Your task to perform on an android device: turn off airplane mode Image 0: 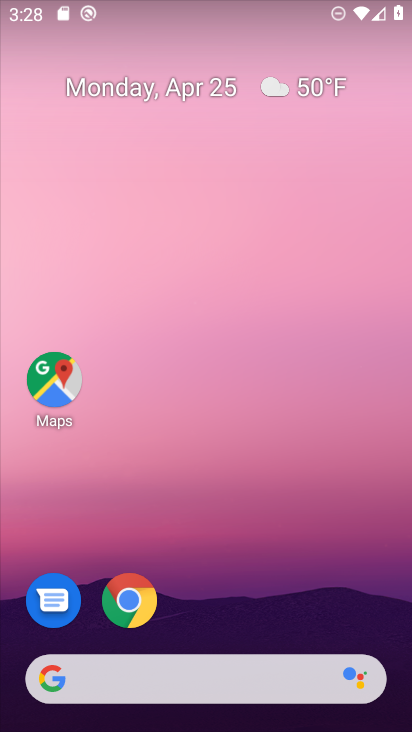
Step 0: drag from (202, 663) to (160, 10)
Your task to perform on an android device: turn off airplane mode Image 1: 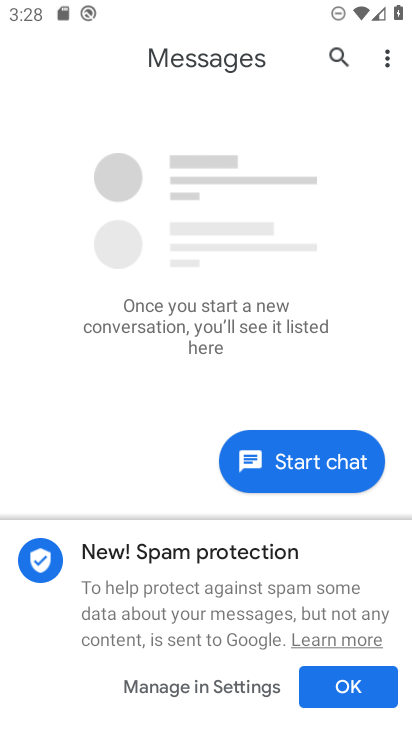
Step 1: press home button
Your task to perform on an android device: turn off airplane mode Image 2: 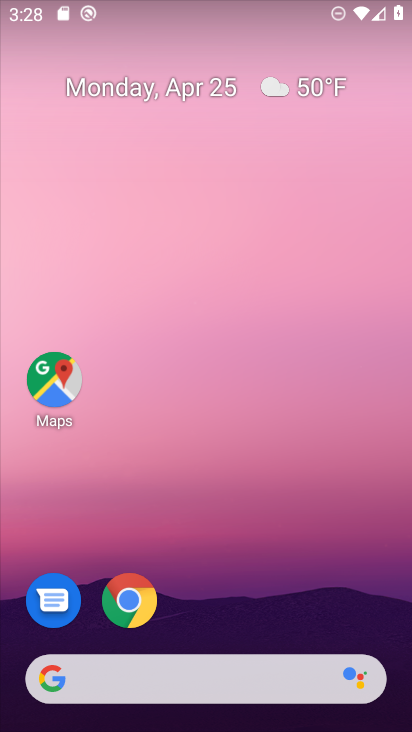
Step 2: drag from (219, 638) to (269, 0)
Your task to perform on an android device: turn off airplane mode Image 3: 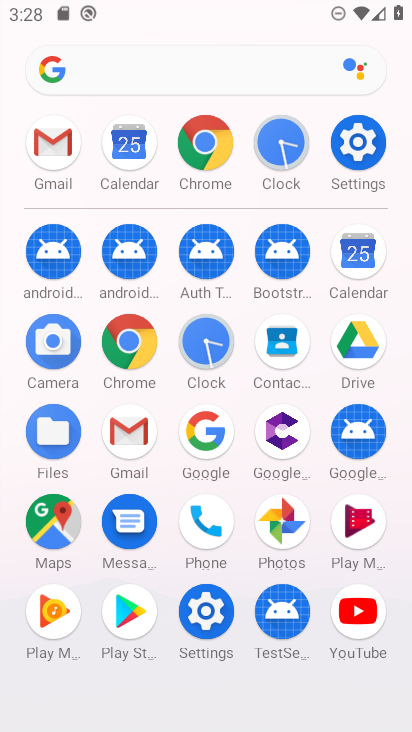
Step 3: click (349, 121)
Your task to perform on an android device: turn off airplane mode Image 4: 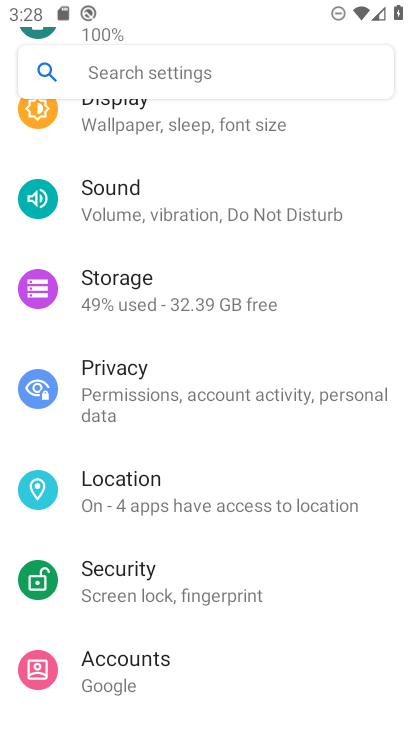
Step 4: drag from (187, 289) to (146, 620)
Your task to perform on an android device: turn off airplane mode Image 5: 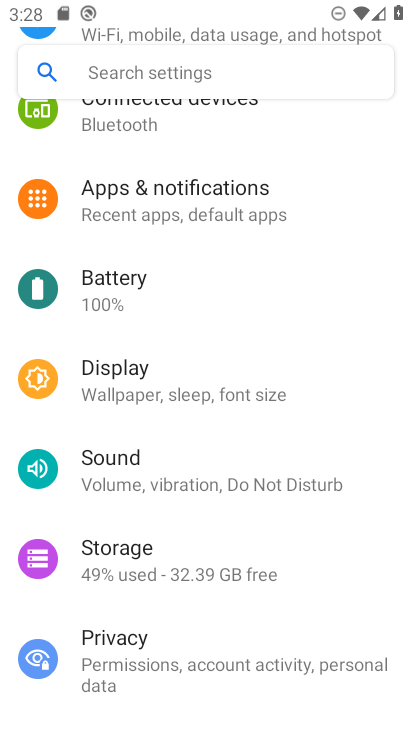
Step 5: drag from (174, 244) to (180, 628)
Your task to perform on an android device: turn off airplane mode Image 6: 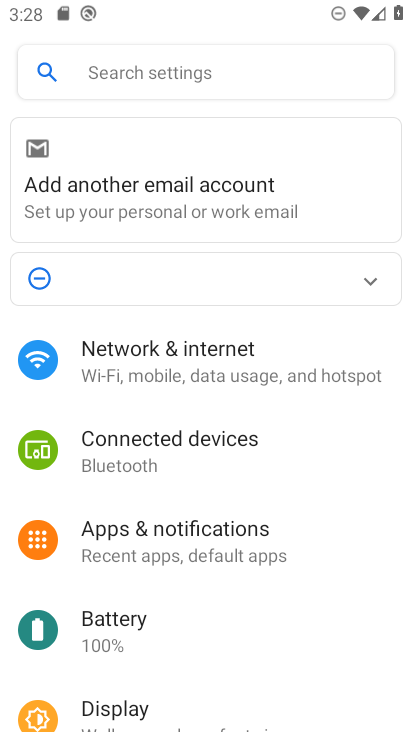
Step 6: click (207, 344)
Your task to perform on an android device: turn off airplane mode Image 7: 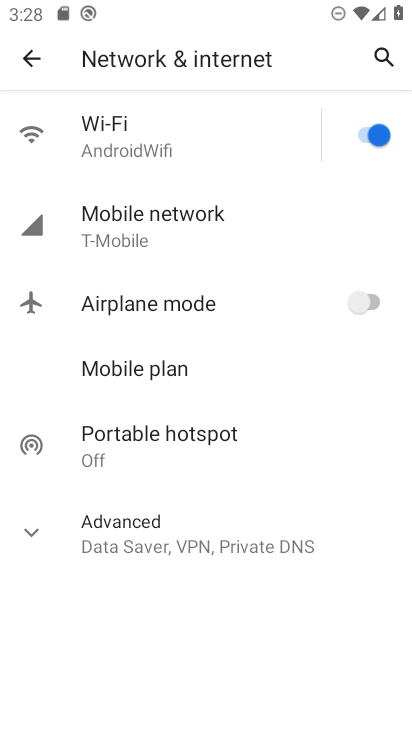
Step 7: task complete